Your task to perform on an android device: Open the map Image 0: 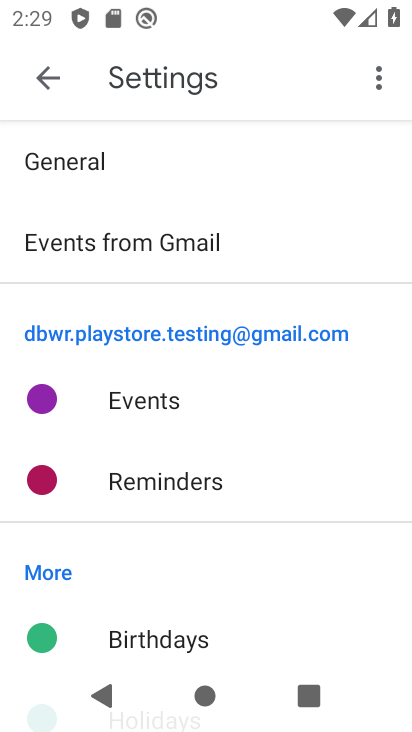
Step 0: press back button
Your task to perform on an android device: Open the map Image 1: 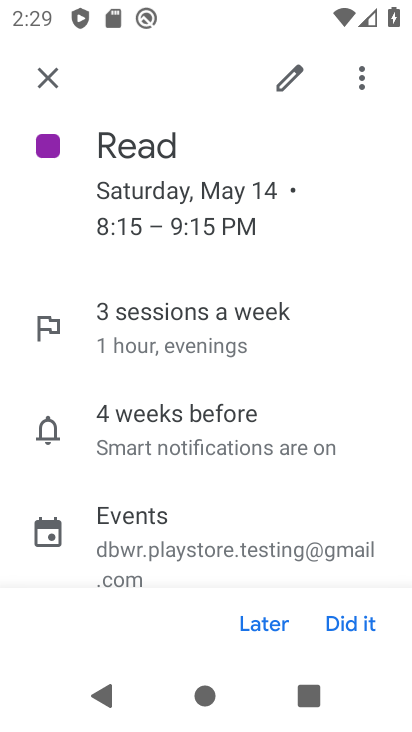
Step 1: click (37, 67)
Your task to perform on an android device: Open the map Image 2: 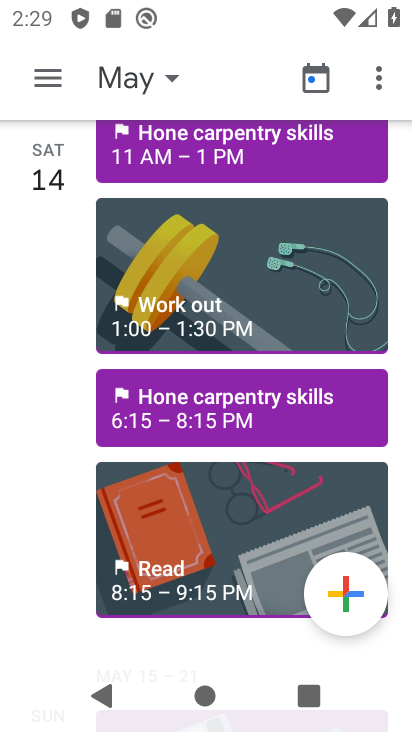
Step 2: press back button
Your task to perform on an android device: Open the map Image 3: 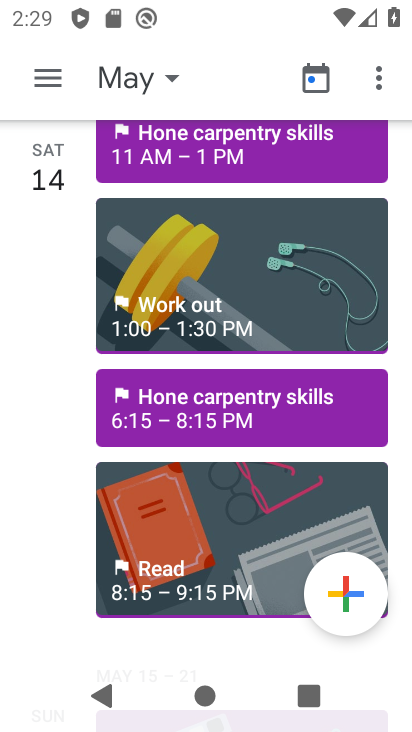
Step 3: press back button
Your task to perform on an android device: Open the map Image 4: 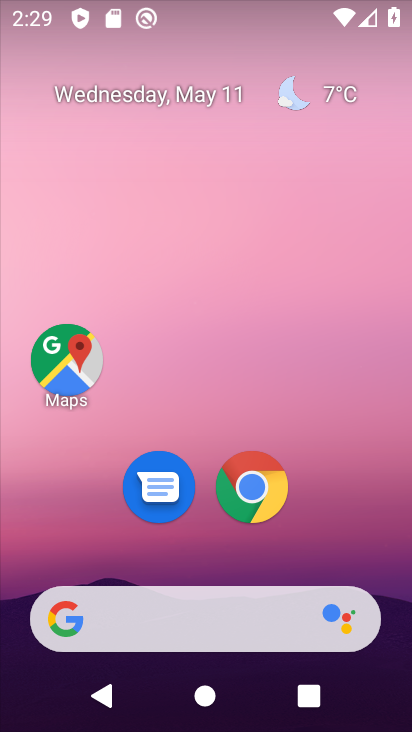
Step 4: click (72, 359)
Your task to perform on an android device: Open the map Image 5: 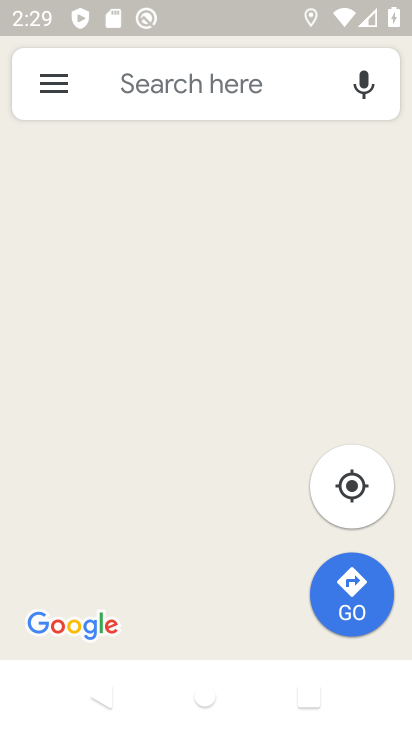
Step 5: task complete